Your task to perform on an android device: uninstall "NewsBreak: Local News & Alerts" Image 0: 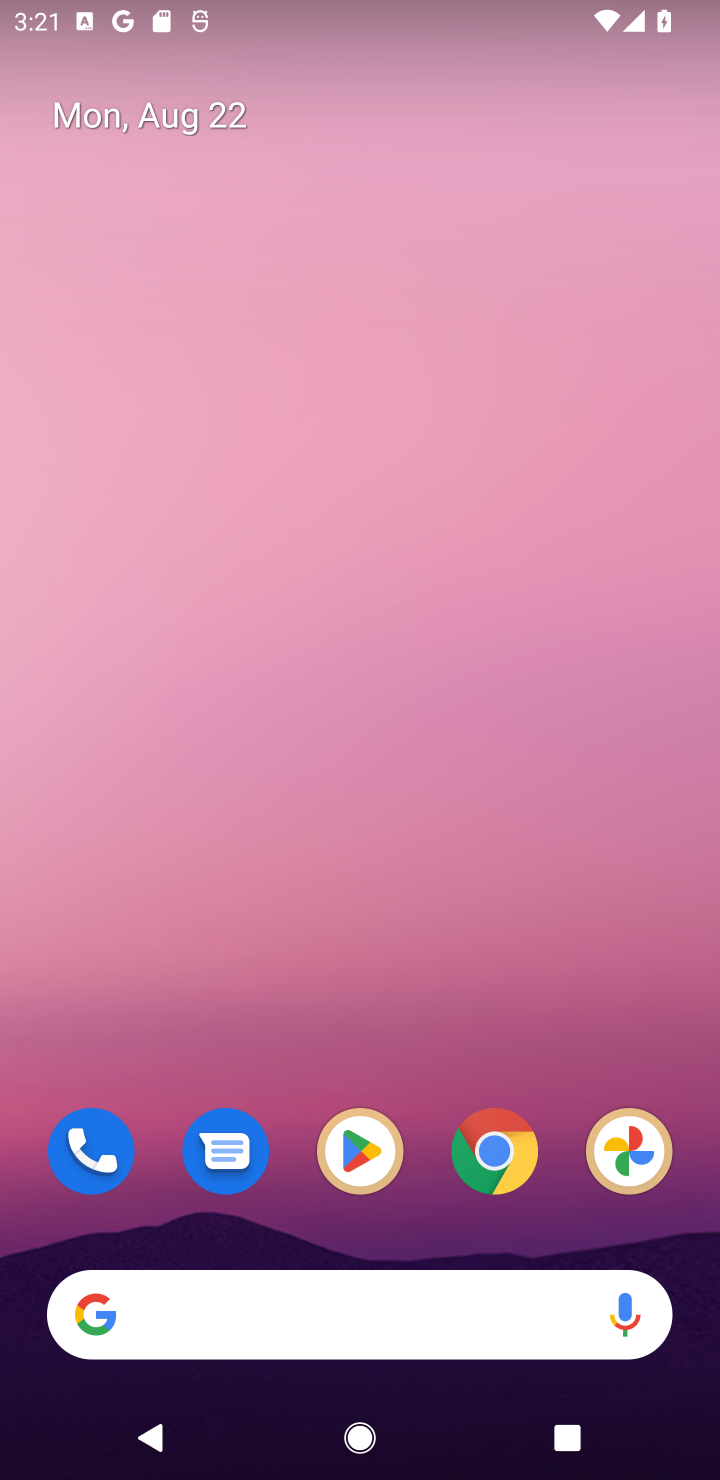
Step 0: click (346, 1152)
Your task to perform on an android device: uninstall "NewsBreak: Local News & Alerts" Image 1: 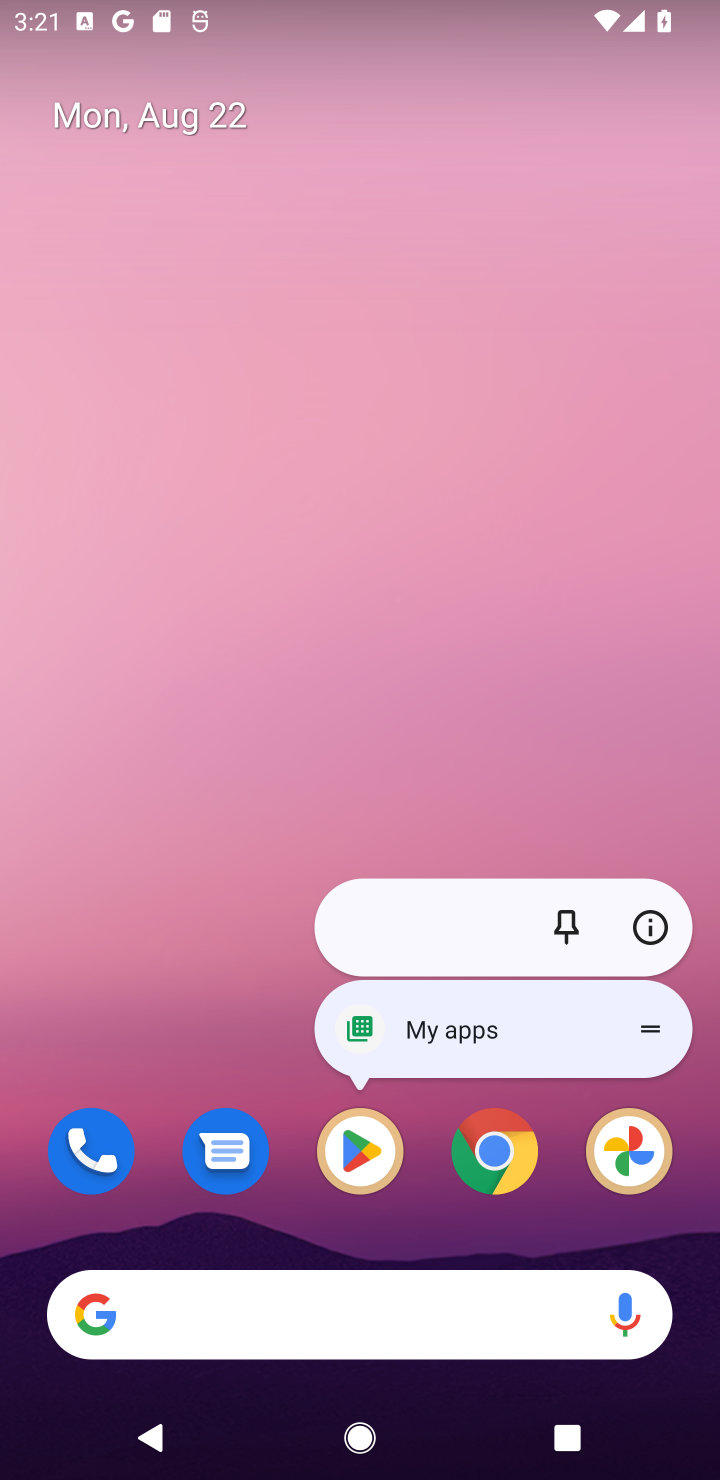
Step 1: click (346, 1154)
Your task to perform on an android device: uninstall "NewsBreak: Local News & Alerts" Image 2: 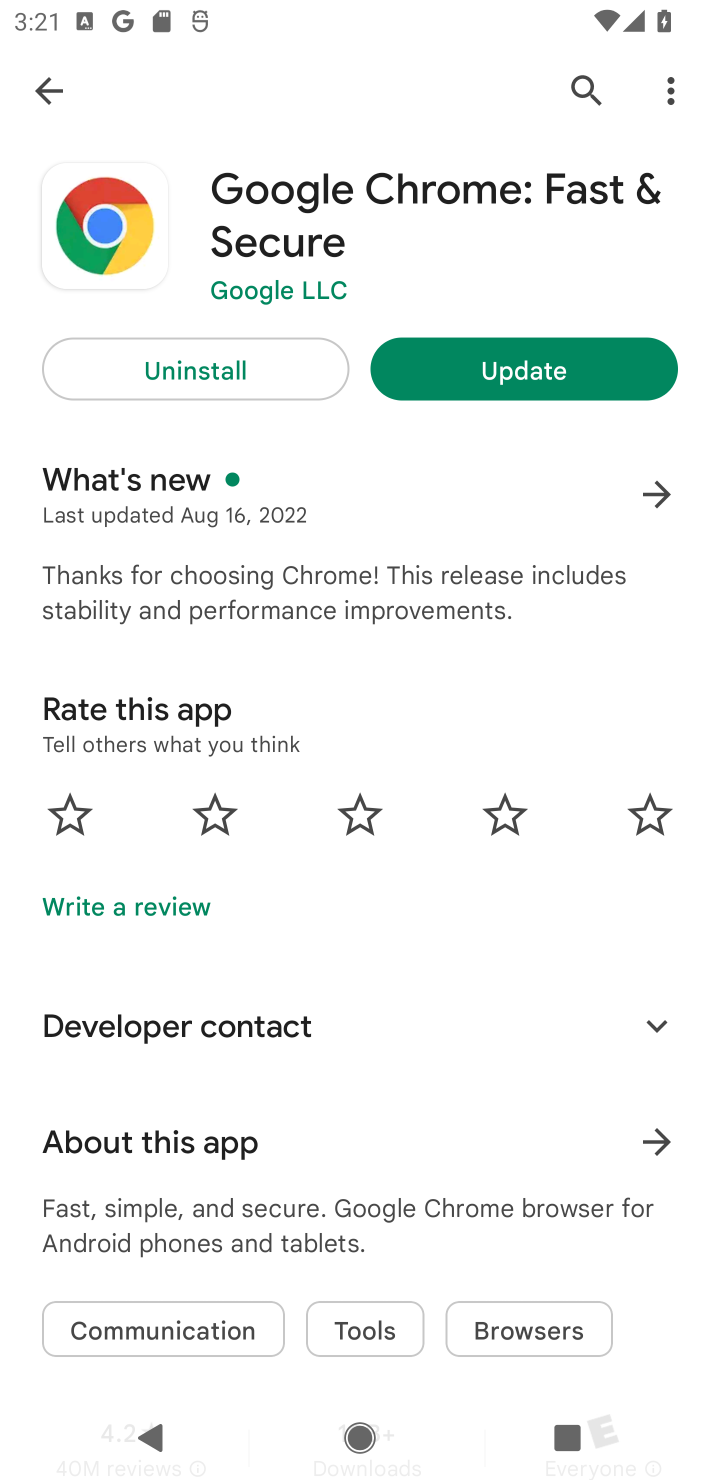
Step 2: click (579, 77)
Your task to perform on an android device: uninstall "NewsBreak: Local News & Alerts" Image 3: 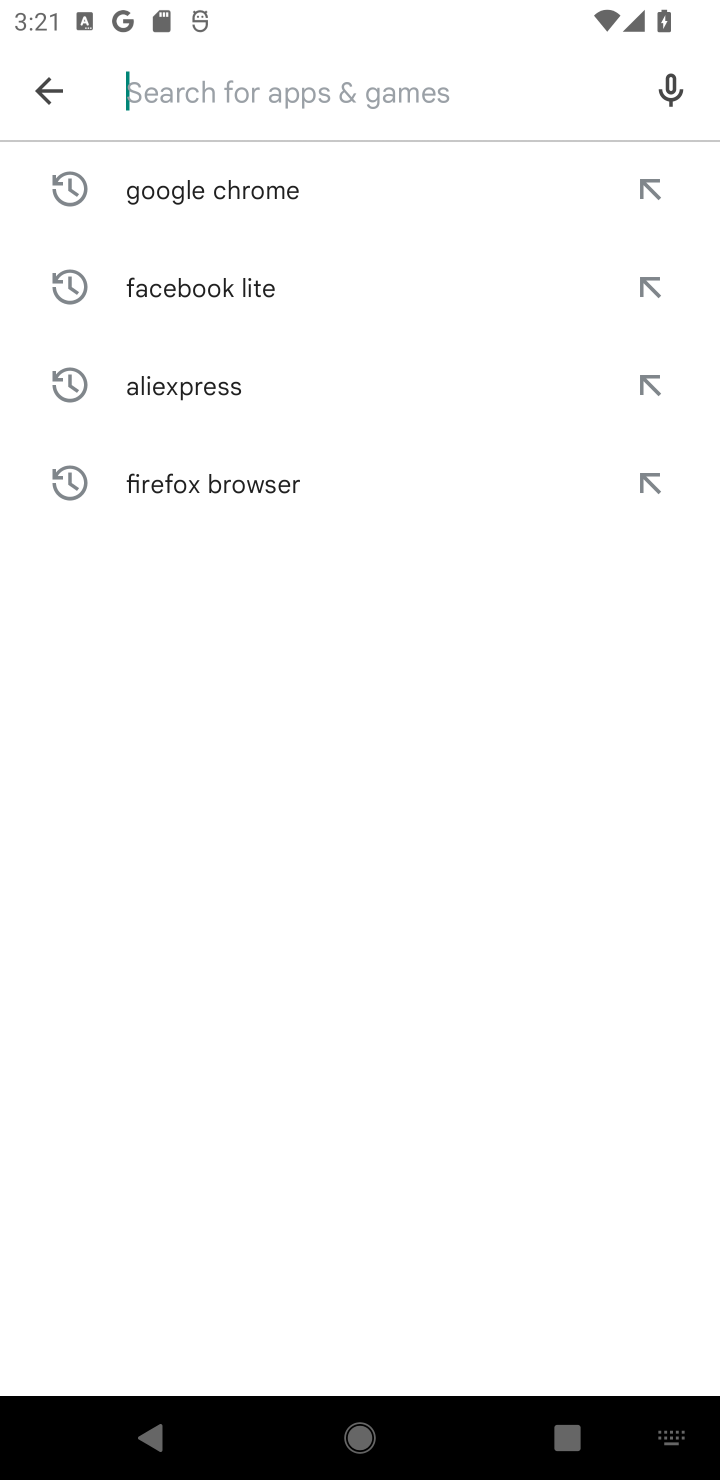
Step 3: type "NewsBreak: Local News & Alerts"
Your task to perform on an android device: uninstall "NewsBreak: Local News & Alerts" Image 4: 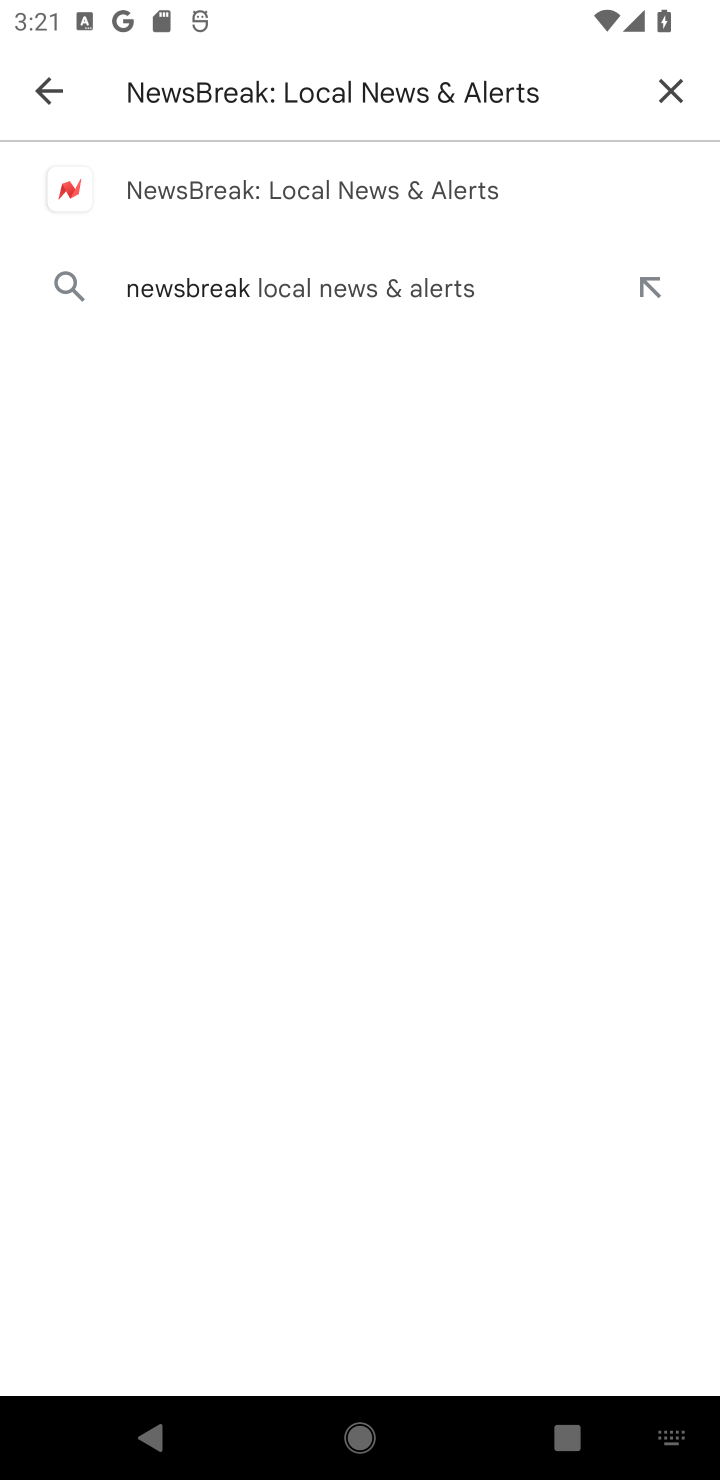
Step 4: click (267, 191)
Your task to perform on an android device: uninstall "NewsBreak: Local News & Alerts" Image 5: 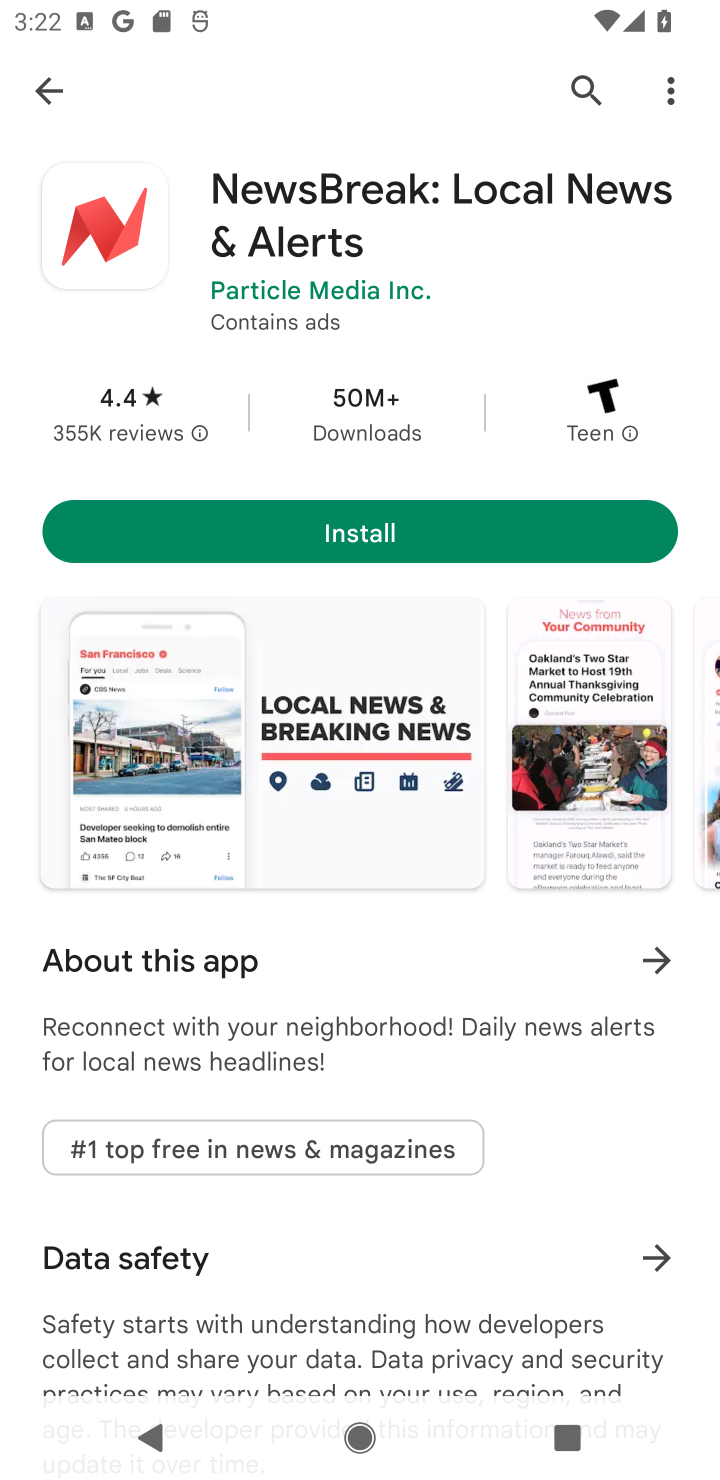
Step 5: task complete